Your task to perform on an android device: clear all cookies in the chrome app Image 0: 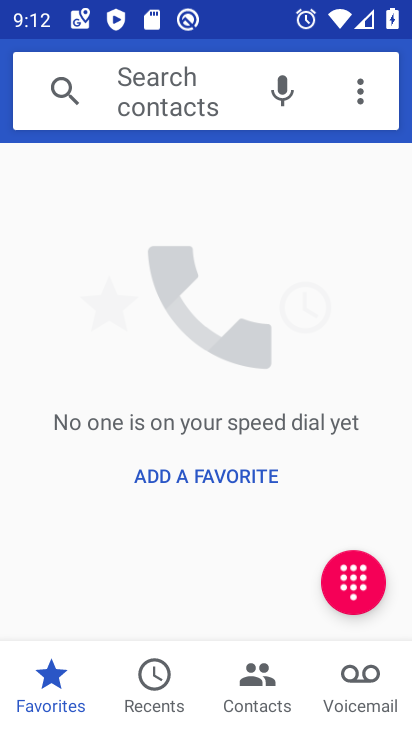
Step 0: press home button
Your task to perform on an android device: clear all cookies in the chrome app Image 1: 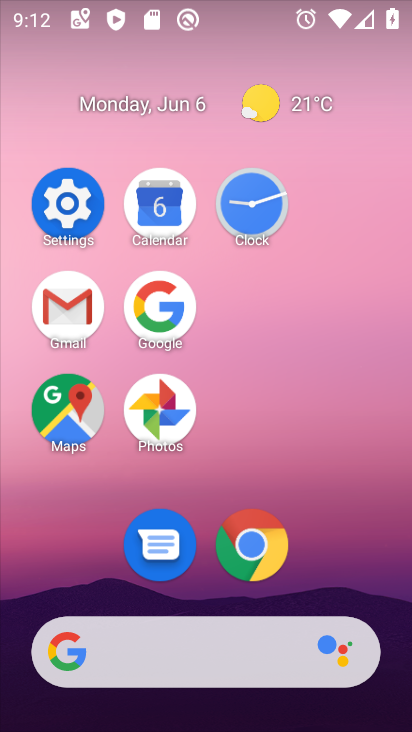
Step 1: click (284, 551)
Your task to perform on an android device: clear all cookies in the chrome app Image 2: 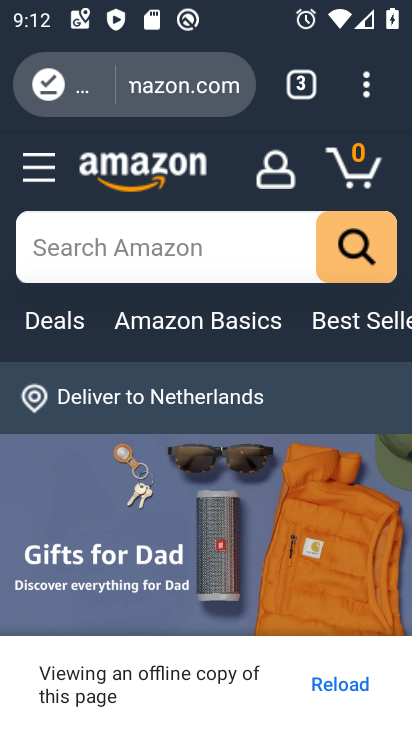
Step 2: click (375, 88)
Your task to perform on an android device: clear all cookies in the chrome app Image 3: 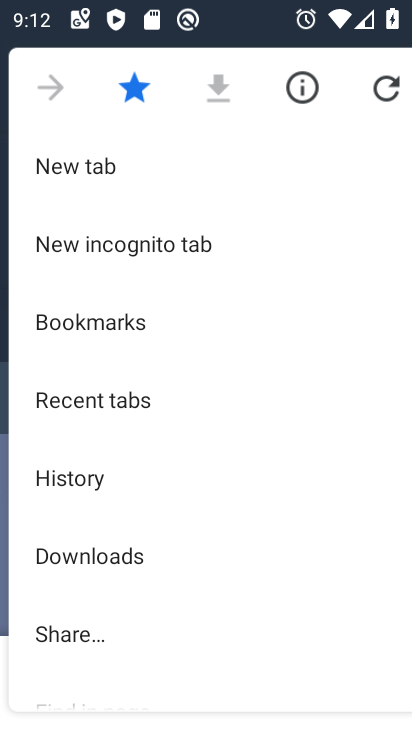
Step 3: drag from (252, 563) to (205, 111)
Your task to perform on an android device: clear all cookies in the chrome app Image 4: 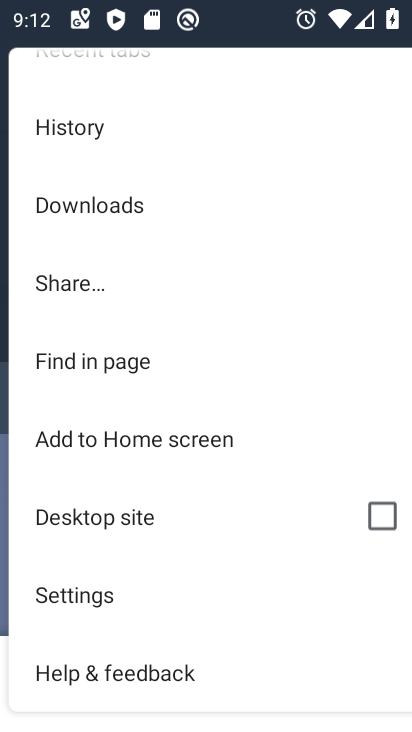
Step 4: click (140, 597)
Your task to perform on an android device: clear all cookies in the chrome app Image 5: 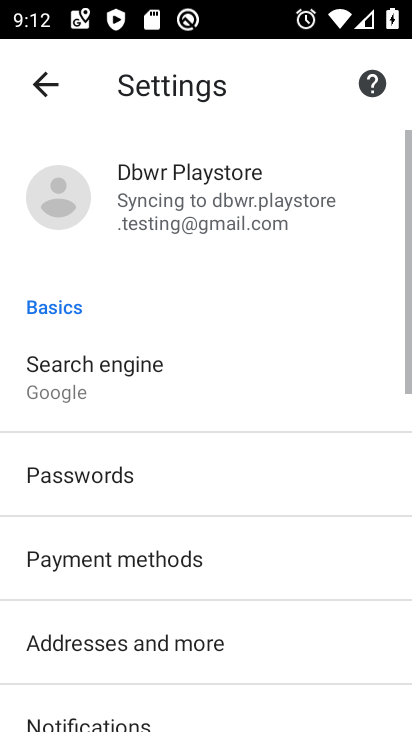
Step 5: drag from (140, 597) to (152, 234)
Your task to perform on an android device: clear all cookies in the chrome app Image 6: 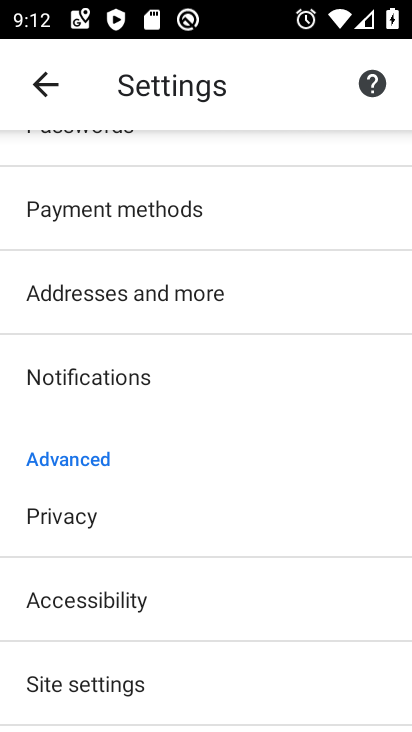
Step 6: click (155, 499)
Your task to perform on an android device: clear all cookies in the chrome app Image 7: 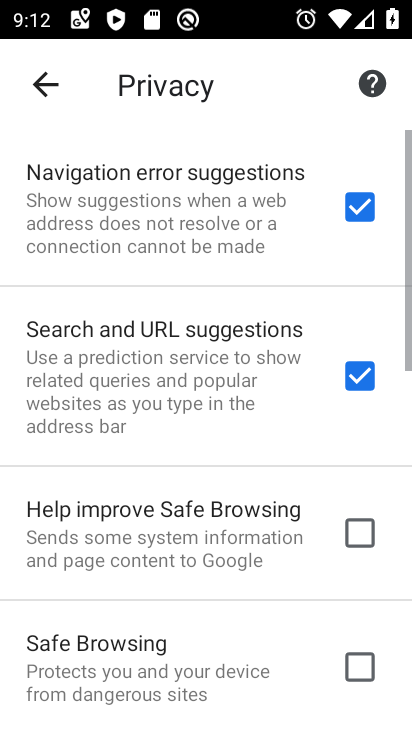
Step 7: drag from (177, 626) to (147, 208)
Your task to perform on an android device: clear all cookies in the chrome app Image 8: 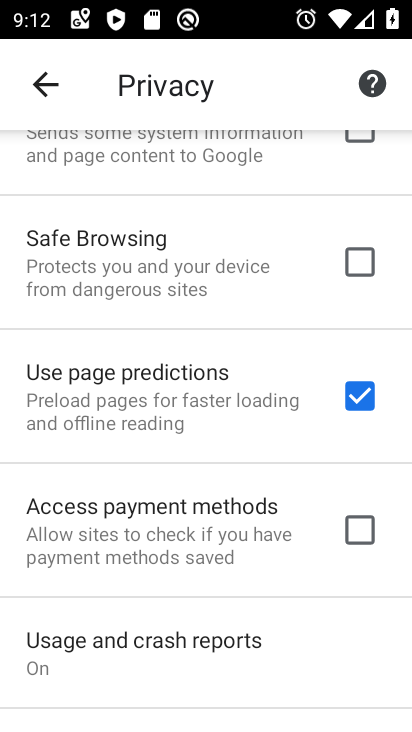
Step 8: drag from (187, 559) to (168, 167)
Your task to perform on an android device: clear all cookies in the chrome app Image 9: 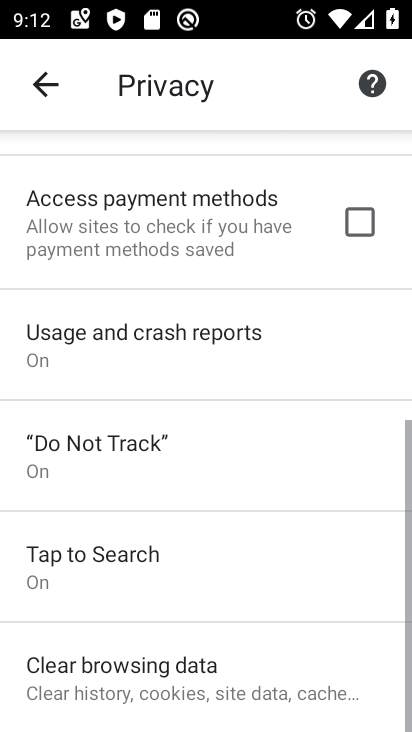
Step 9: click (190, 675)
Your task to perform on an android device: clear all cookies in the chrome app Image 10: 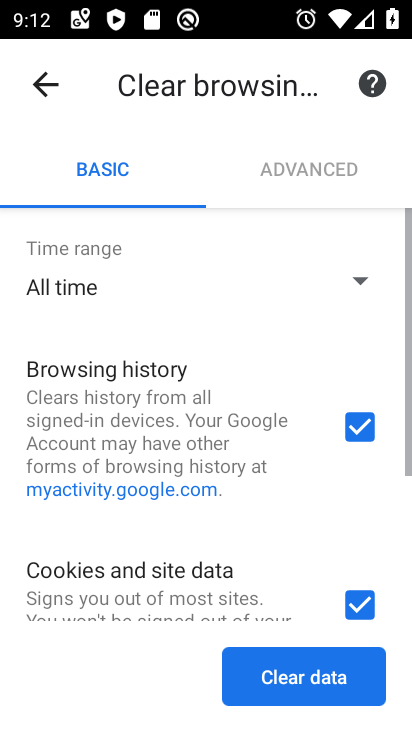
Step 10: drag from (190, 675) to (168, 190)
Your task to perform on an android device: clear all cookies in the chrome app Image 11: 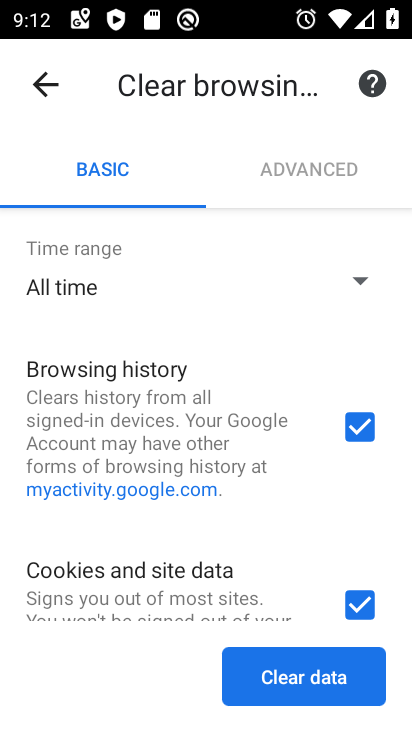
Step 11: drag from (184, 515) to (179, 218)
Your task to perform on an android device: clear all cookies in the chrome app Image 12: 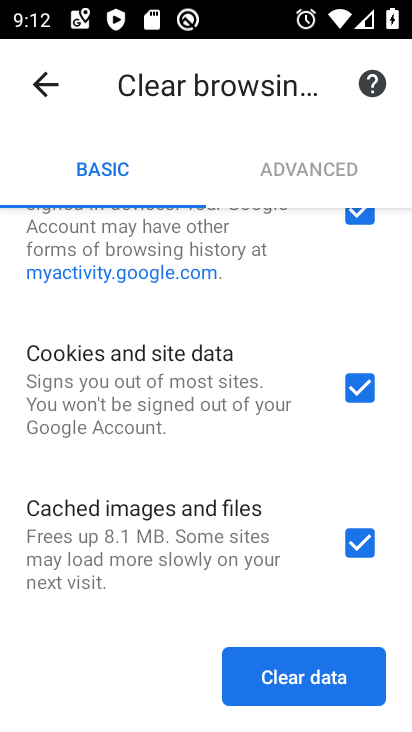
Step 12: click (272, 670)
Your task to perform on an android device: clear all cookies in the chrome app Image 13: 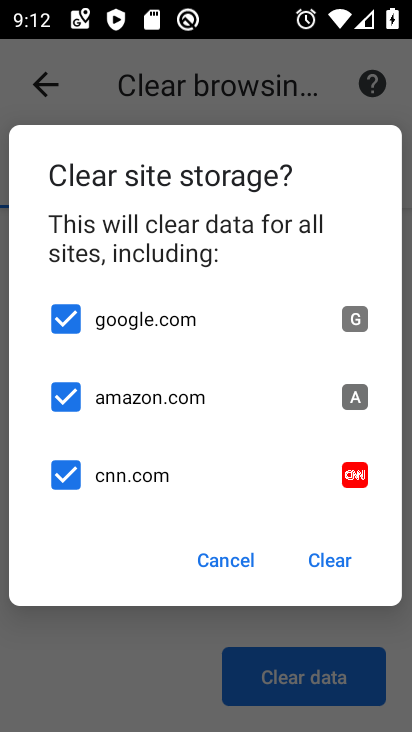
Step 13: click (348, 561)
Your task to perform on an android device: clear all cookies in the chrome app Image 14: 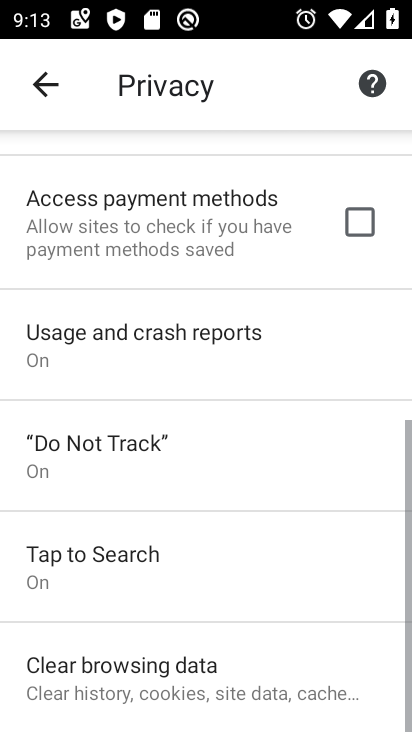
Step 14: task complete